Your task to perform on an android device: Go to ESPN.com Image 0: 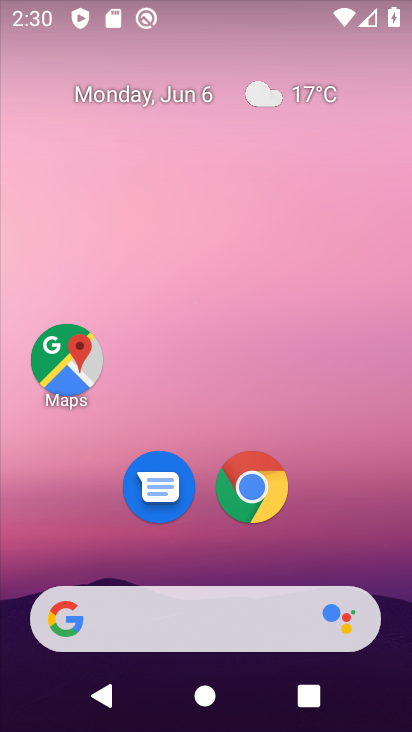
Step 0: click (267, 486)
Your task to perform on an android device: Go to ESPN.com Image 1: 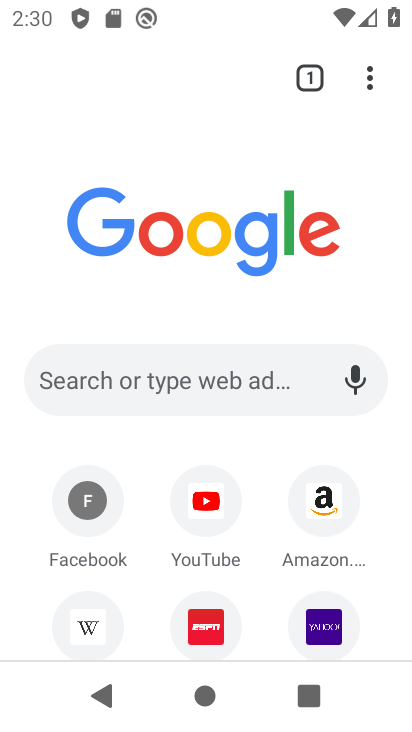
Step 1: click (219, 650)
Your task to perform on an android device: Go to ESPN.com Image 2: 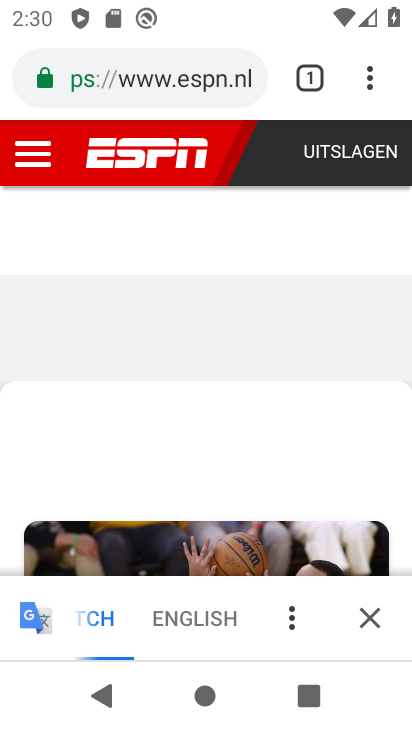
Step 2: click (376, 630)
Your task to perform on an android device: Go to ESPN.com Image 3: 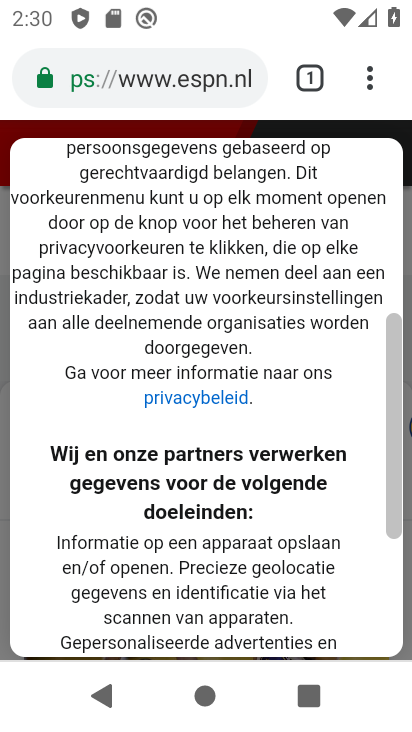
Step 3: drag from (190, 603) to (296, 241)
Your task to perform on an android device: Go to ESPN.com Image 4: 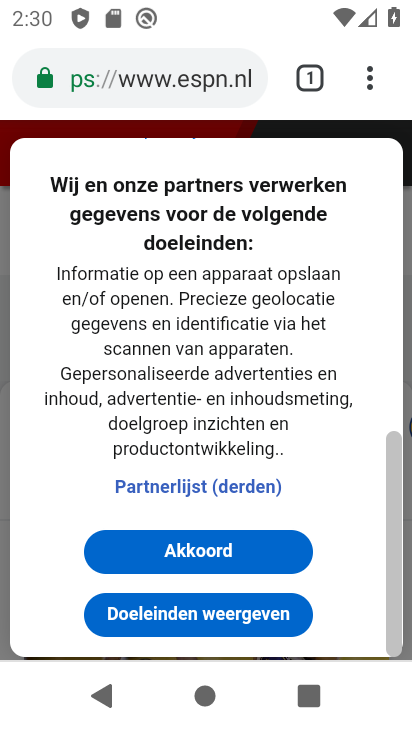
Step 4: click (222, 555)
Your task to perform on an android device: Go to ESPN.com Image 5: 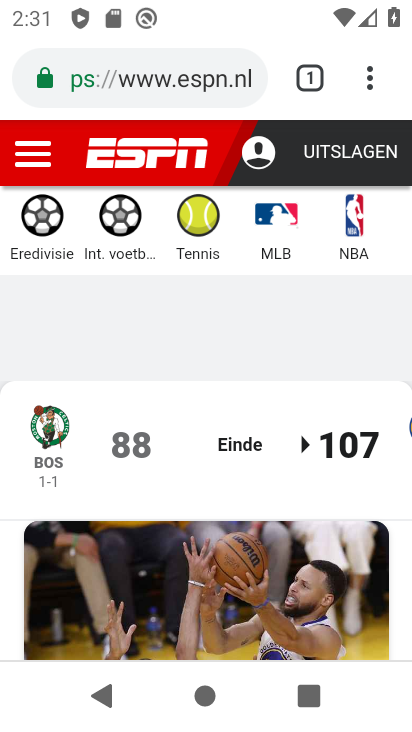
Step 5: task complete